Your task to perform on an android device: toggle data saver in the chrome app Image 0: 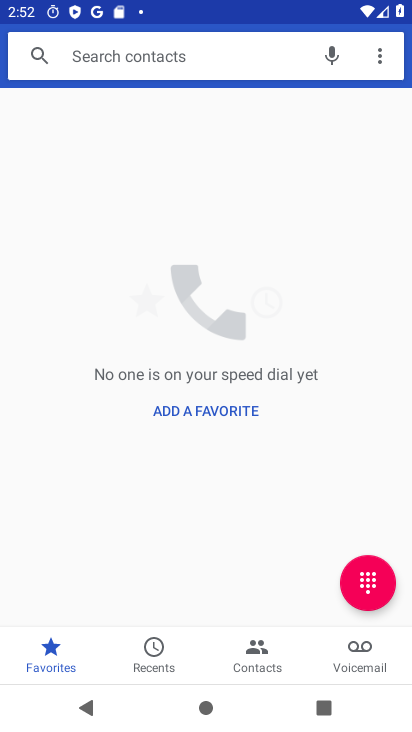
Step 0: press home button
Your task to perform on an android device: toggle data saver in the chrome app Image 1: 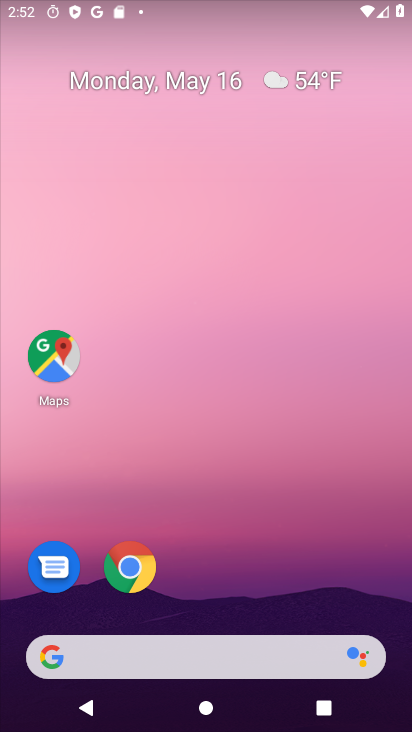
Step 1: click (133, 569)
Your task to perform on an android device: toggle data saver in the chrome app Image 2: 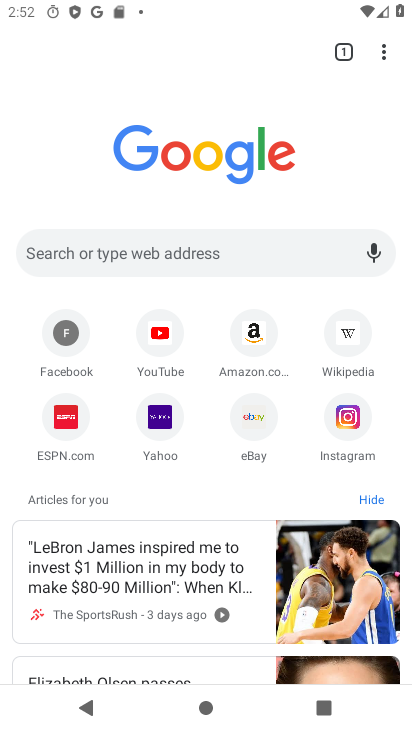
Step 2: click (384, 53)
Your task to perform on an android device: toggle data saver in the chrome app Image 3: 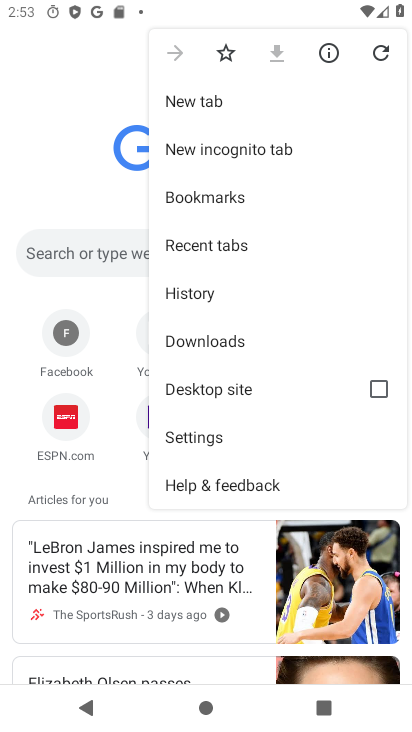
Step 3: click (199, 439)
Your task to perform on an android device: toggle data saver in the chrome app Image 4: 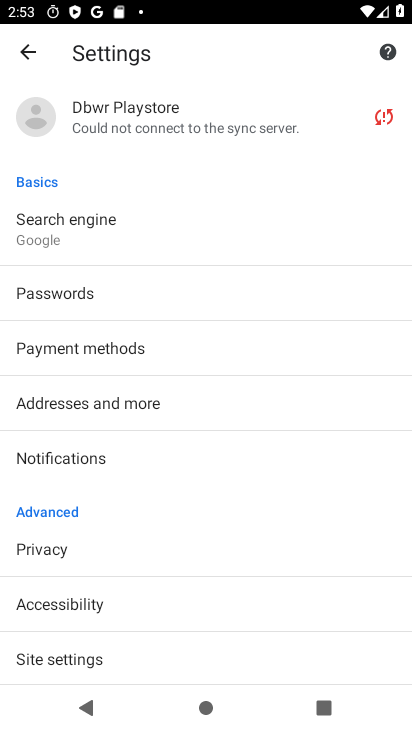
Step 4: drag from (122, 518) to (172, 433)
Your task to perform on an android device: toggle data saver in the chrome app Image 5: 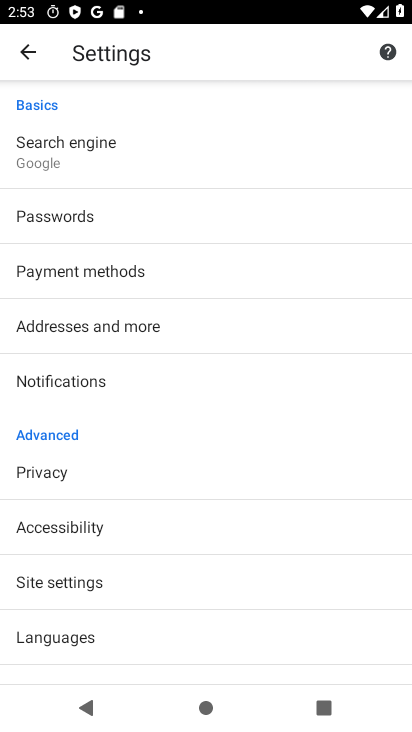
Step 5: drag from (122, 524) to (176, 454)
Your task to perform on an android device: toggle data saver in the chrome app Image 6: 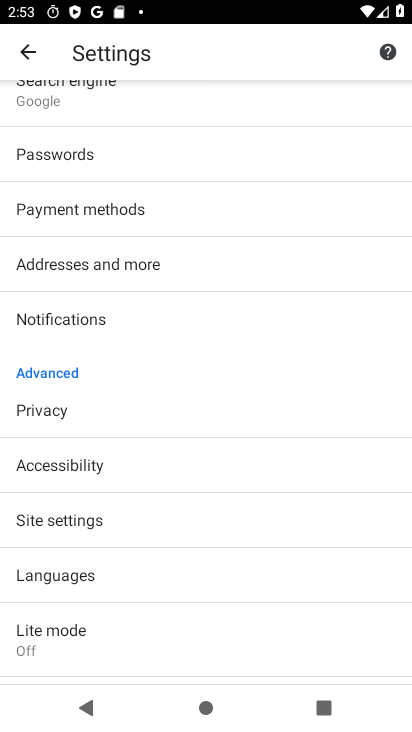
Step 6: drag from (103, 608) to (124, 545)
Your task to perform on an android device: toggle data saver in the chrome app Image 7: 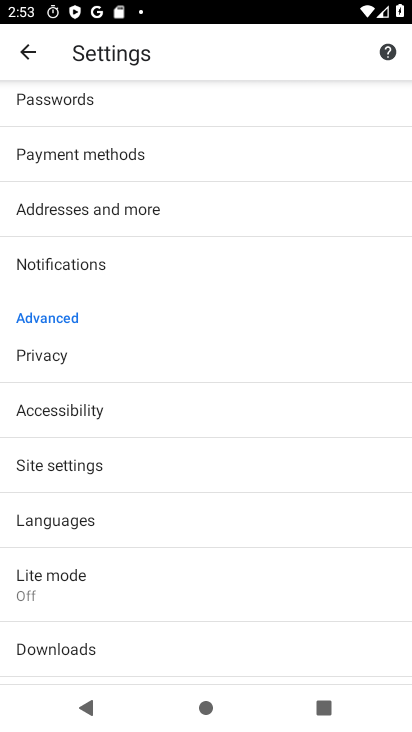
Step 7: click (77, 584)
Your task to perform on an android device: toggle data saver in the chrome app Image 8: 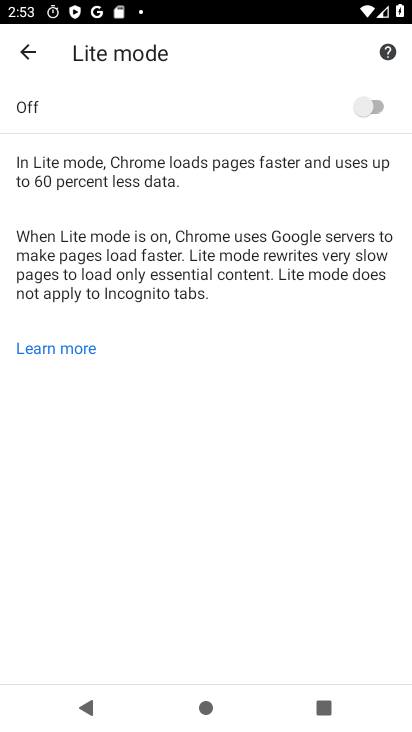
Step 8: click (368, 112)
Your task to perform on an android device: toggle data saver in the chrome app Image 9: 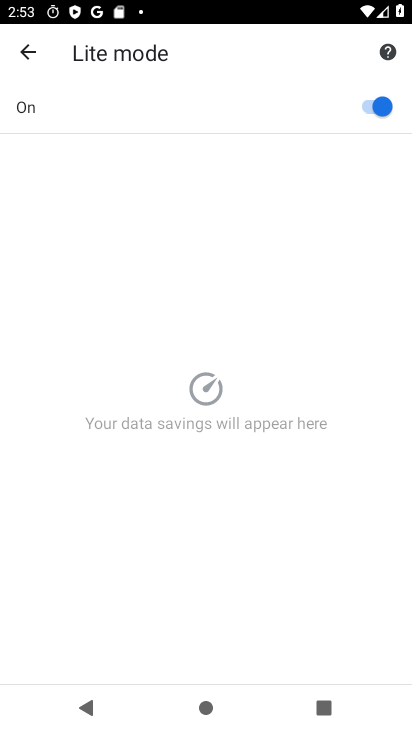
Step 9: task complete